Your task to perform on an android device: clear all cookies in the chrome app Image 0: 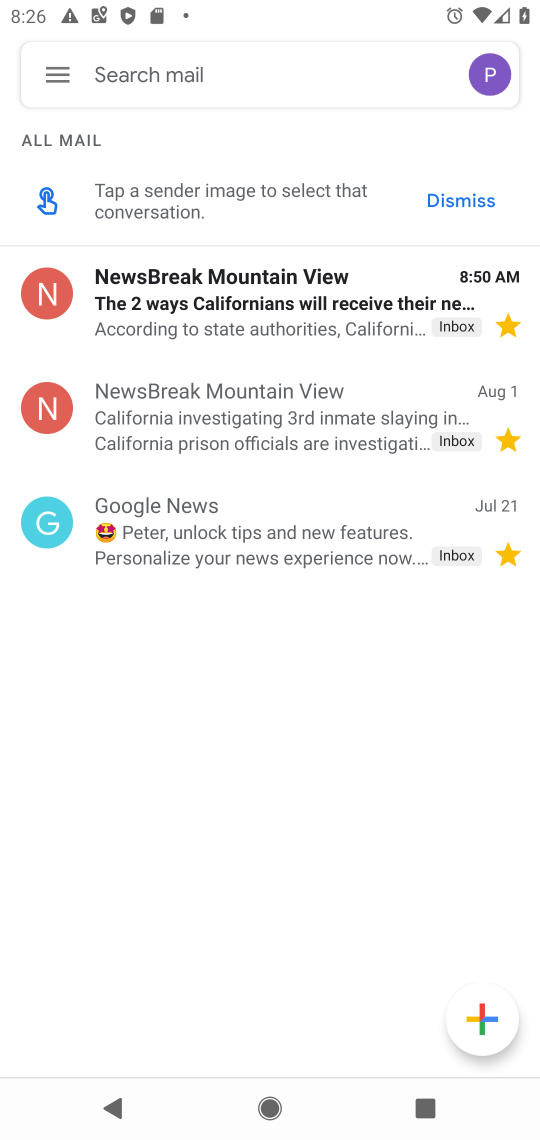
Step 0: press home button
Your task to perform on an android device: clear all cookies in the chrome app Image 1: 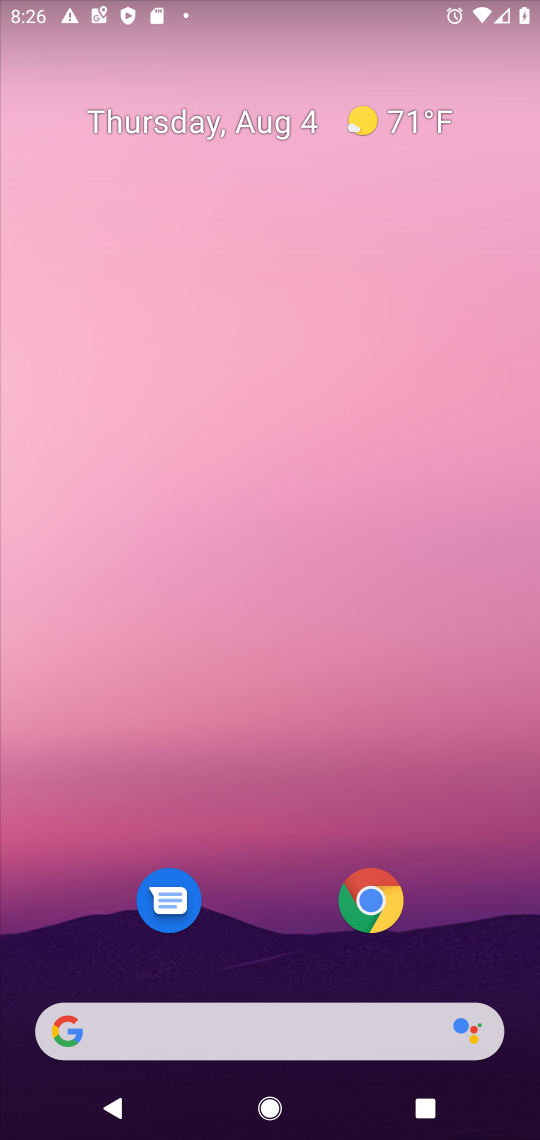
Step 1: click (369, 900)
Your task to perform on an android device: clear all cookies in the chrome app Image 2: 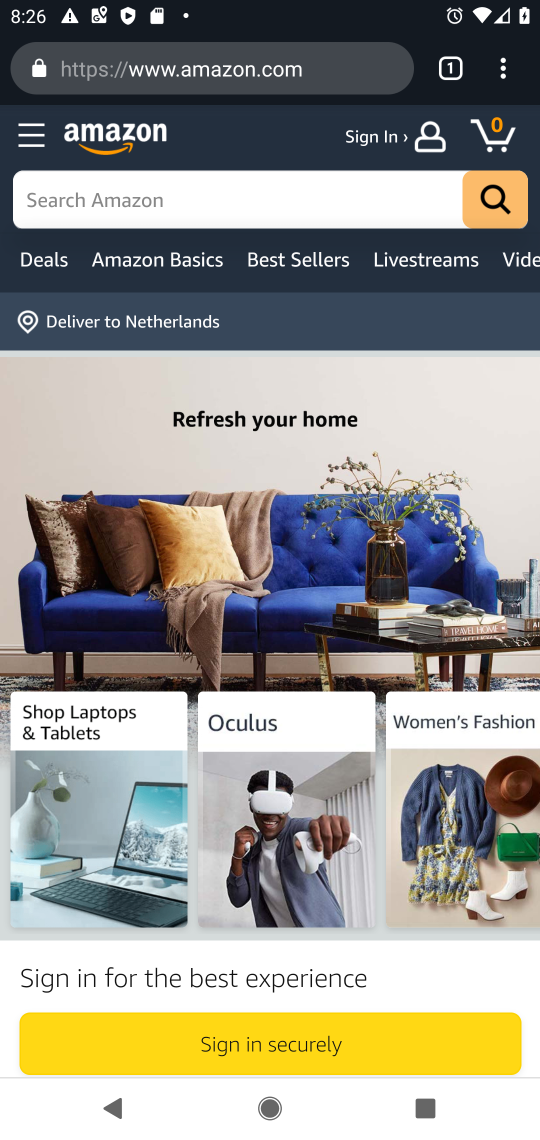
Step 2: drag from (503, 70) to (276, 911)
Your task to perform on an android device: clear all cookies in the chrome app Image 3: 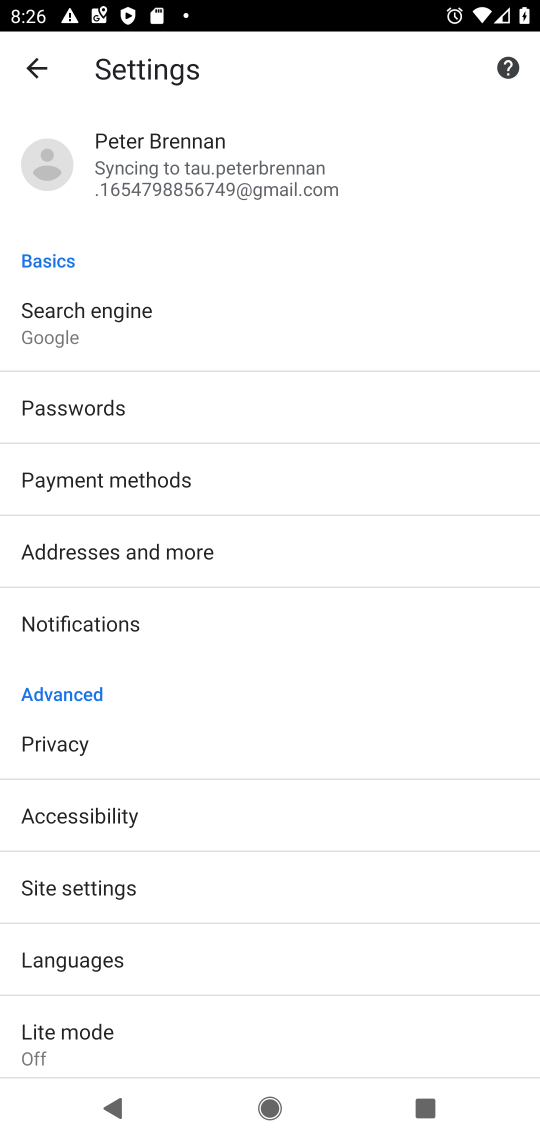
Step 3: click (54, 752)
Your task to perform on an android device: clear all cookies in the chrome app Image 4: 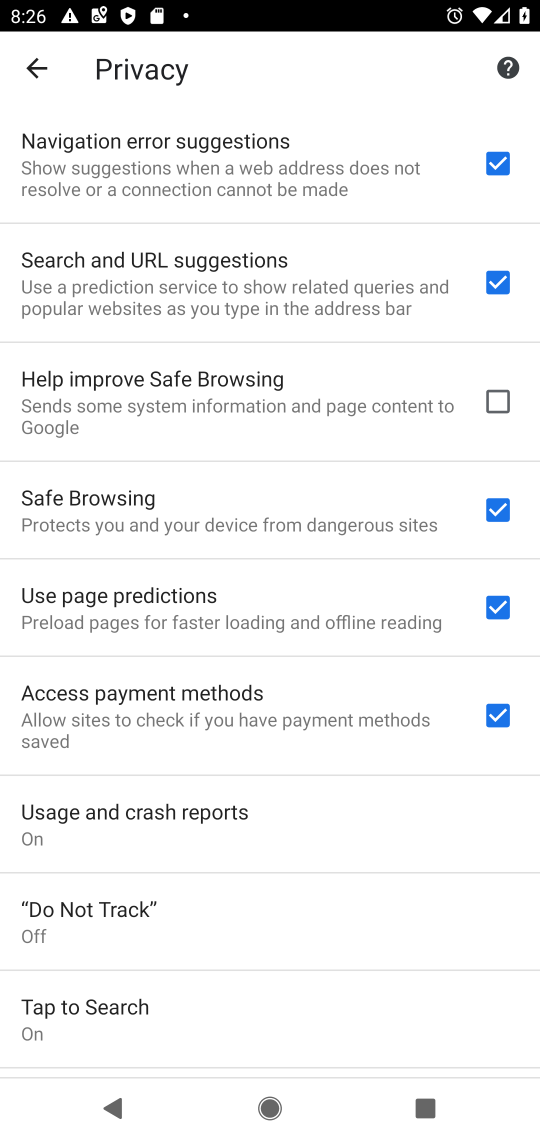
Step 4: drag from (211, 887) to (239, 599)
Your task to perform on an android device: clear all cookies in the chrome app Image 5: 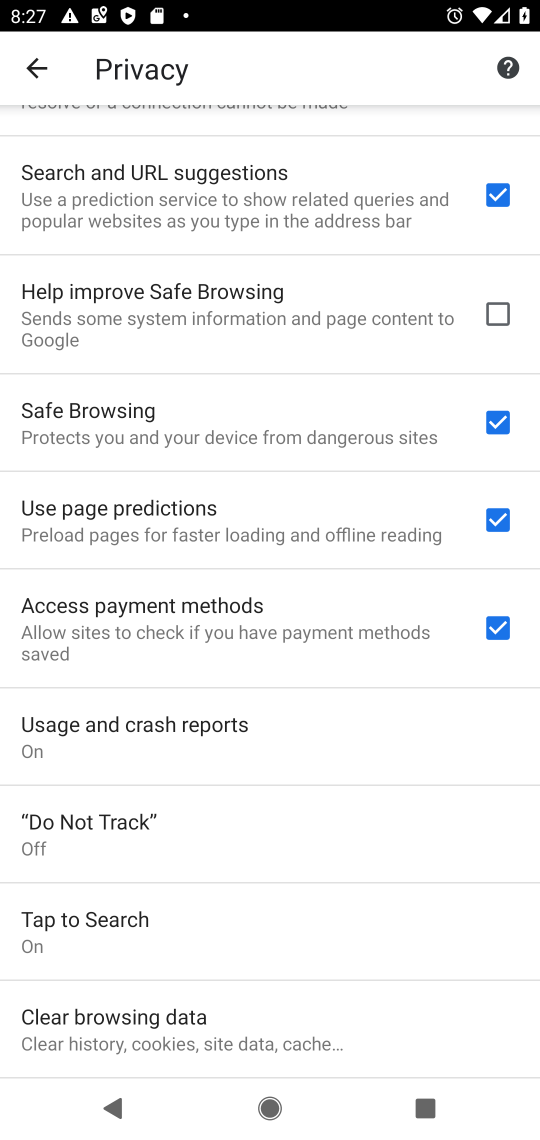
Step 5: click (130, 1021)
Your task to perform on an android device: clear all cookies in the chrome app Image 6: 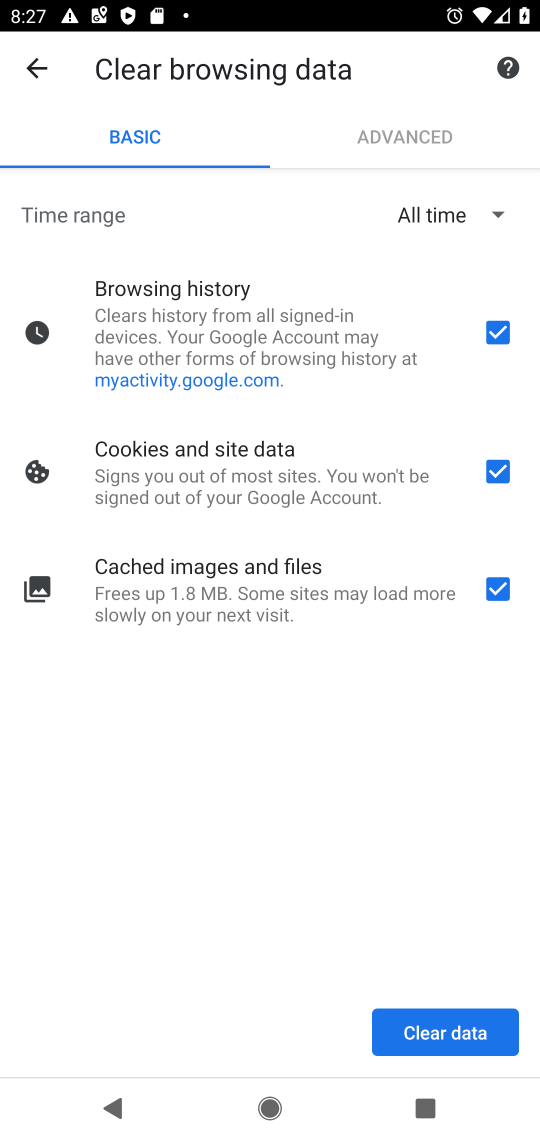
Step 6: click (511, 325)
Your task to perform on an android device: clear all cookies in the chrome app Image 7: 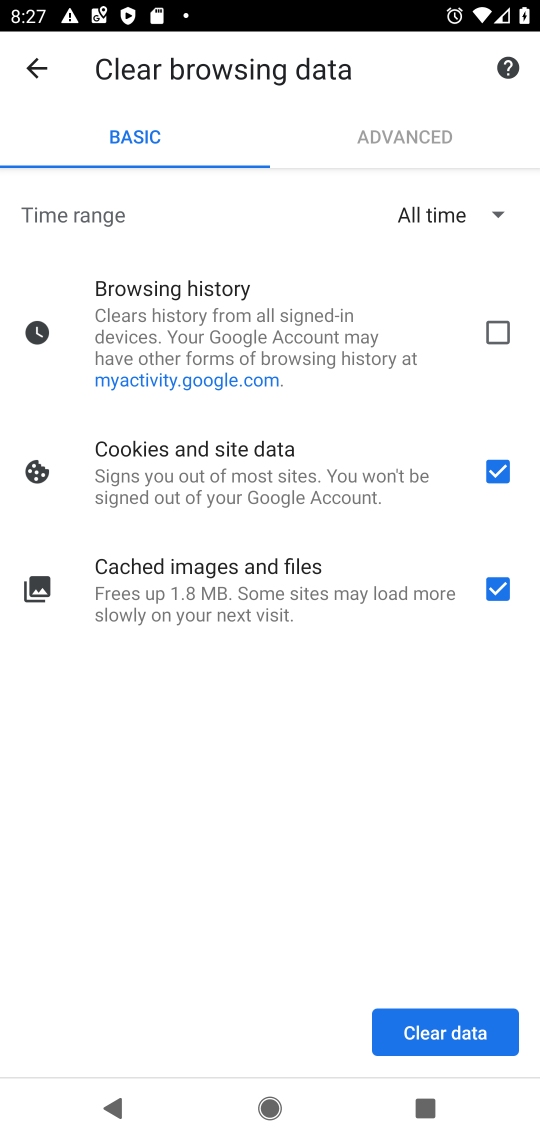
Step 7: click (480, 570)
Your task to perform on an android device: clear all cookies in the chrome app Image 8: 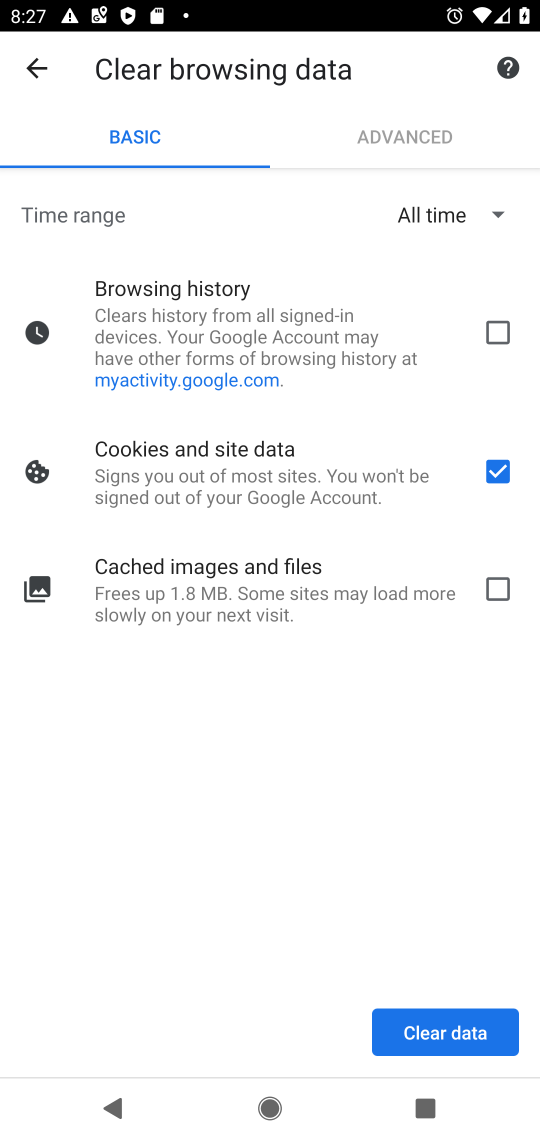
Step 8: click (432, 1029)
Your task to perform on an android device: clear all cookies in the chrome app Image 9: 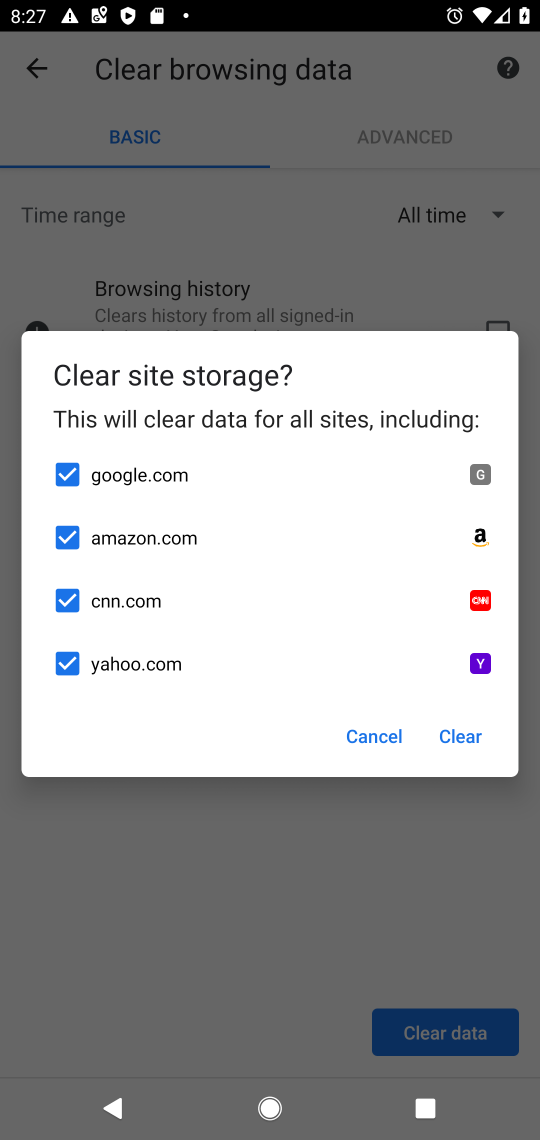
Step 9: click (446, 741)
Your task to perform on an android device: clear all cookies in the chrome app Image 10: 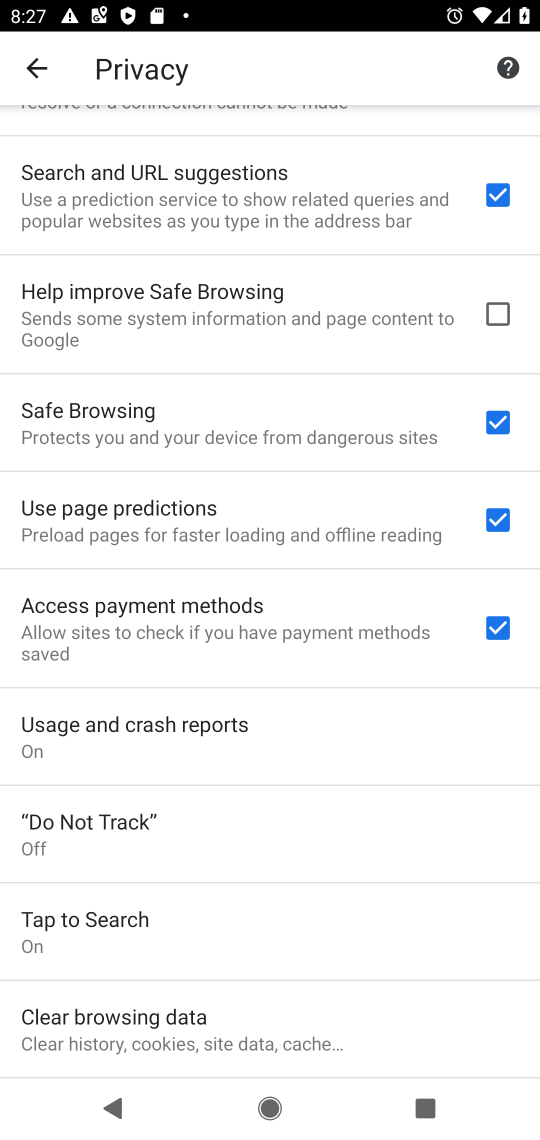
Step 10: task complete